Your task to perform on an android device: change the clock style Image 0: 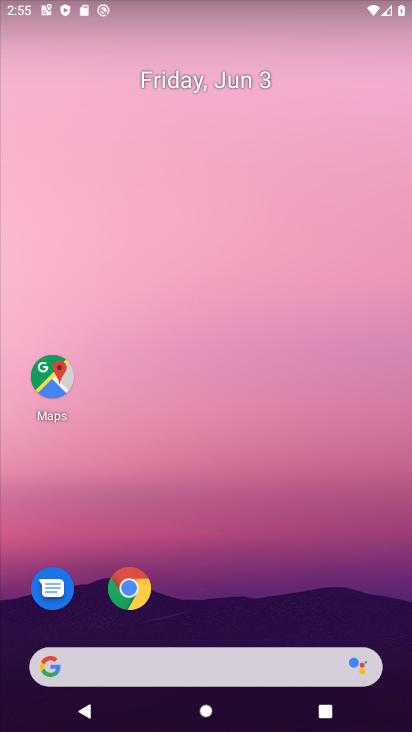
Step 0: drag from (0, 682) to (370, 76)
Your task to perform on an android device: change the clock style Image 1: 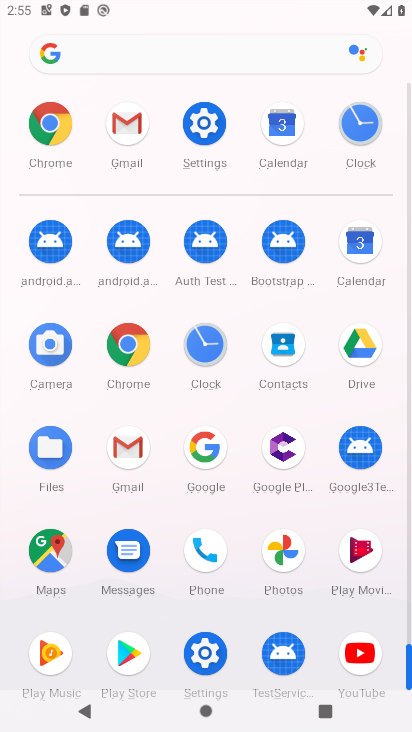
Step 1: click (353, 123)
Your task to perform on an android device: change the clock style Image 2: 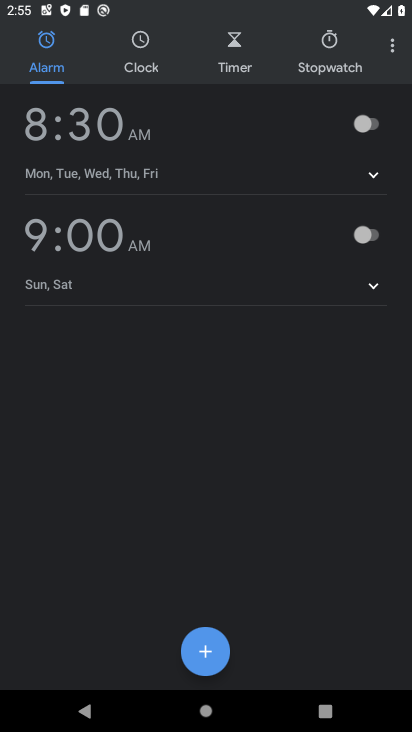
Step 2: click (391, 52)
Your task to perform on an android device: change the clock style Image 3: 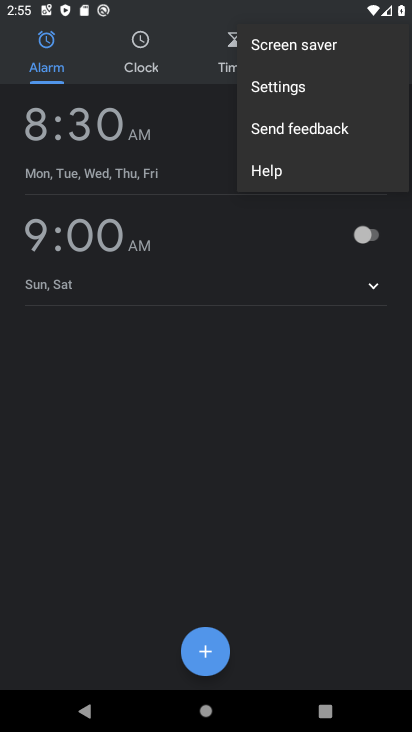
Step 3: click (301, 85)
Your task to perform on an android device: change the clock style Image 4: 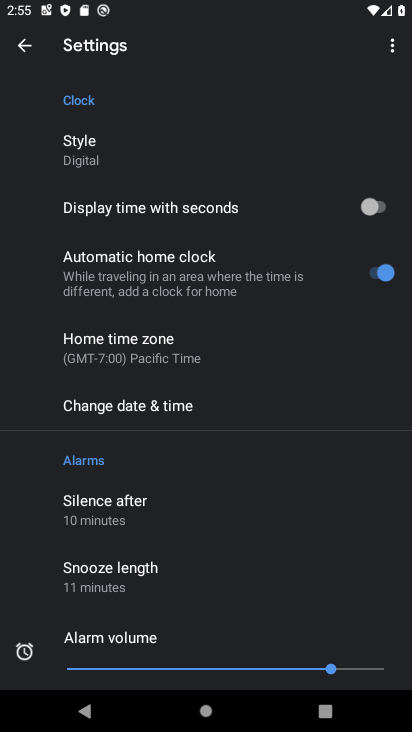
Step 4: click (68, 143)
Your task to perform on an android device: change the clock style Image 5: 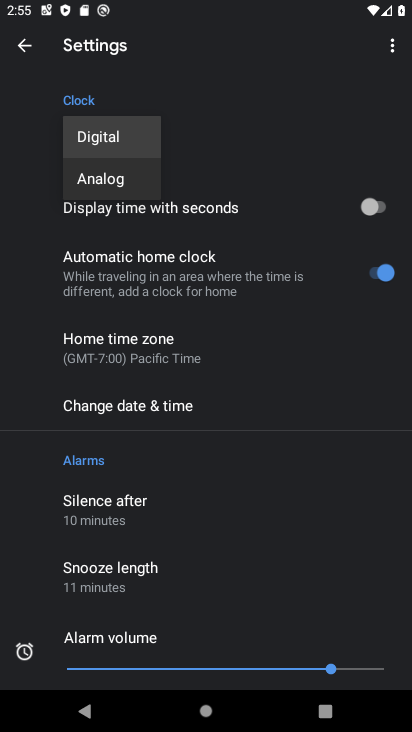
Step 5: click (131, 175)
Your task to perform on an android device: change the clock style Image 6: 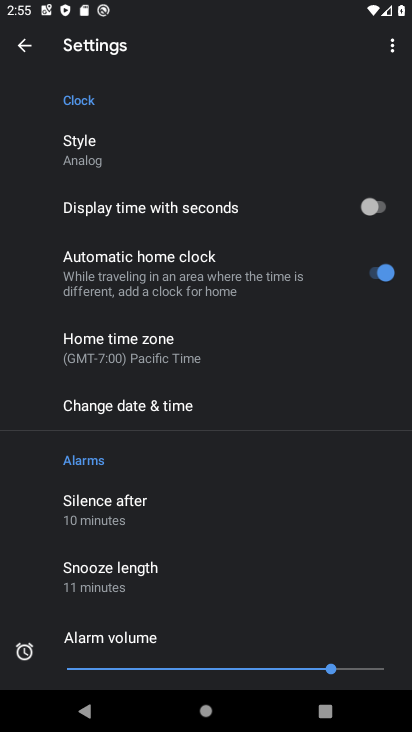
Step 6: task complete